Your task to perform on an android device: toggle data saver in the chrome app Image 0: 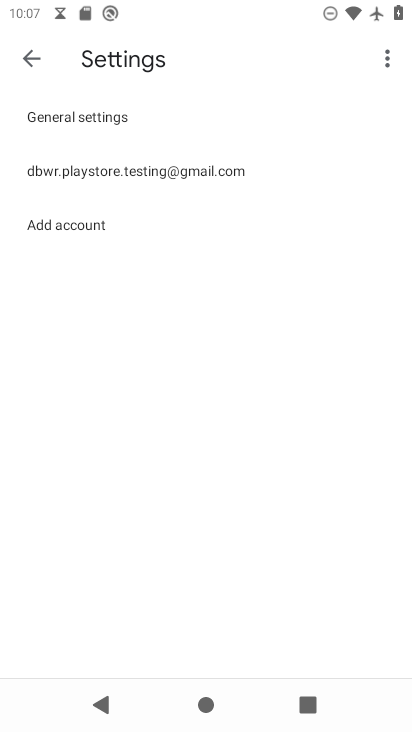
Step 0: press home button
Your task to perform on an android device: toggle data saver in the chrome app Image 1: 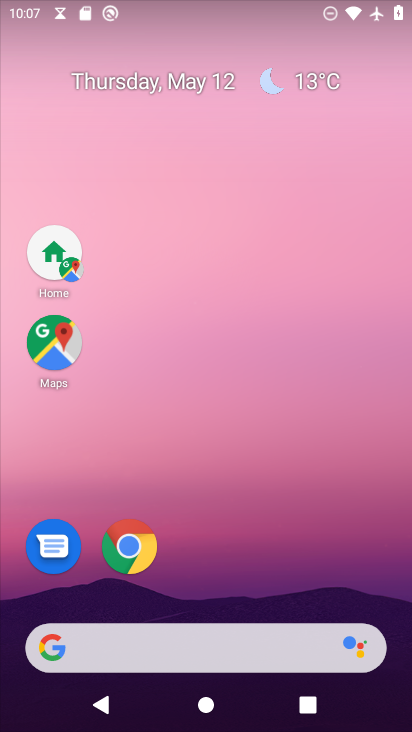
Step 1: drag from (165, 649) to (309, 123)
Your task to perform on an android device: toggle data saver in the chrome app Image 2: 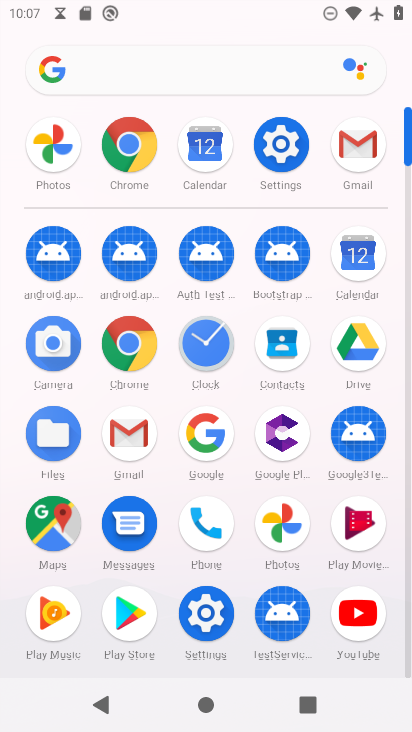
Step 2: click (132, 160)
Your task to perform on an android device: toggle data saver in the chrome app Image 3: 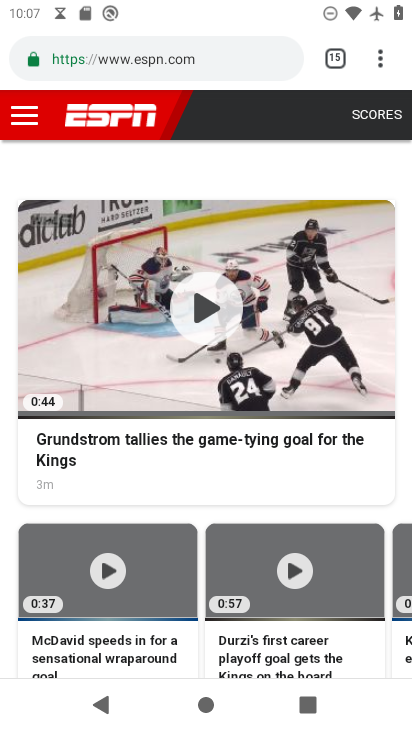
Step 3: drag from (382, 65) to (264, 574)
Your task to perform on an android device: toggle data saver in the chrome app Image 4: 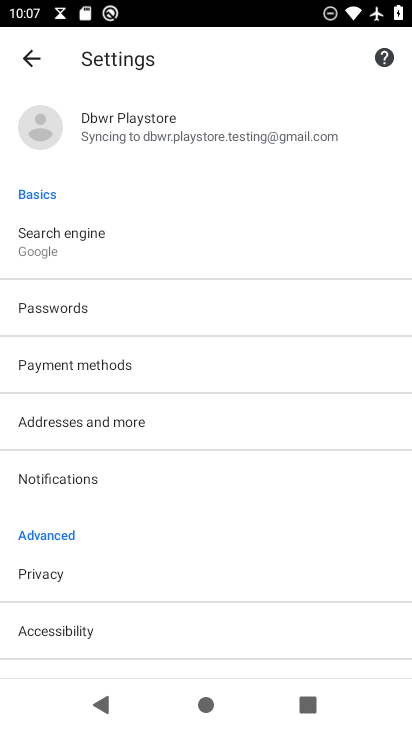
Step 4: drag from (171, 602) to (300, 244)
Your task to perform on an android device: toggle data saver in the chrome app Image 5: 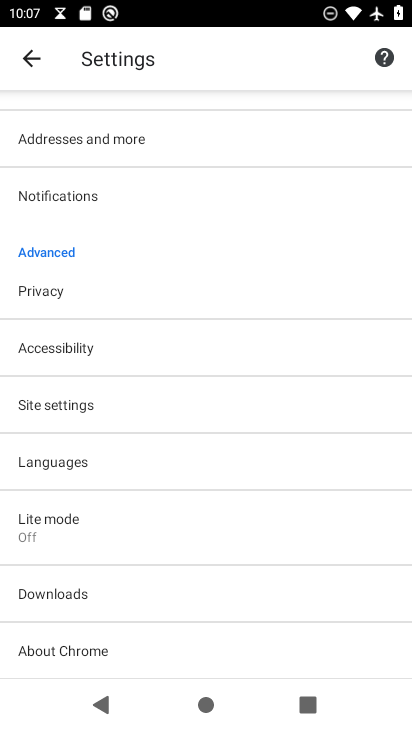
Step 5: click (72, 531)
Your task to perform on an android device: toggle data saver in the chrome app Image 6: 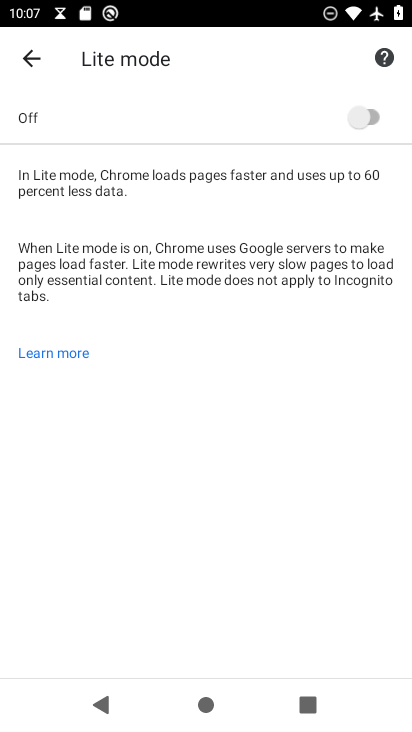
Step 6: click (370, 116)
Your task to perform on an android device: toggle data saver in the chrome app Image 7: 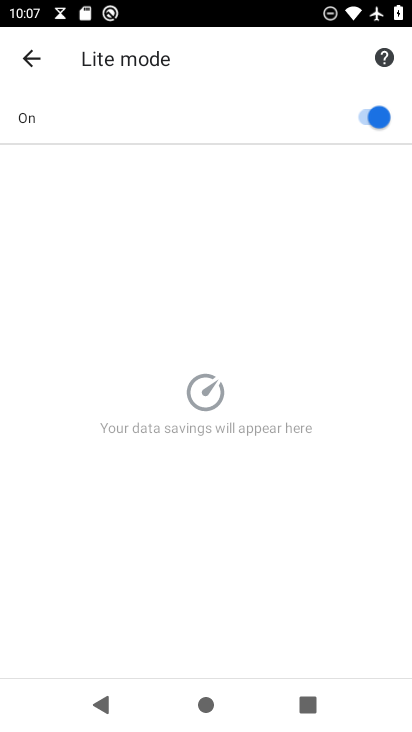
Step 7: task complete